Your task to perform on an android device: turn on improve location accuracy Image 0: 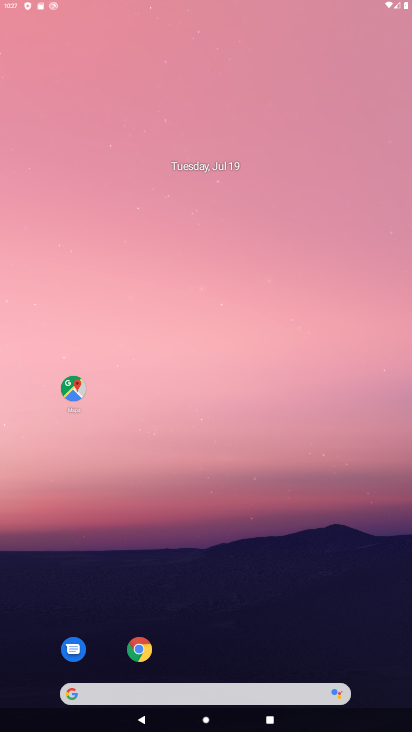
Step 0: click (318, 80)
Your task to perform on an android device: turn on improve location accuracy Image 1: 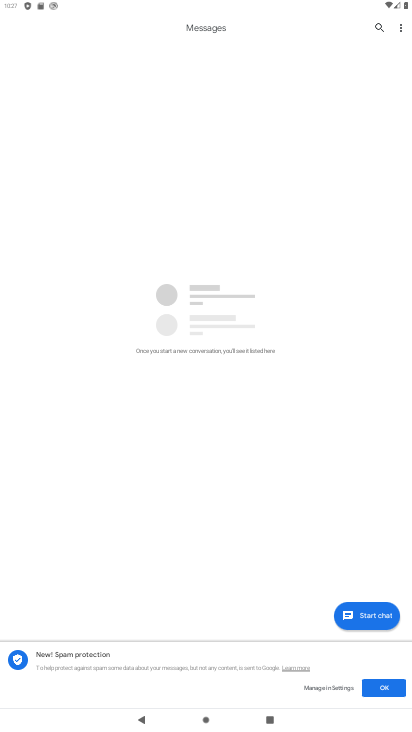
Step 1: press home button
Your task to perform on an android device: turn on improve location accuracy Image 2: 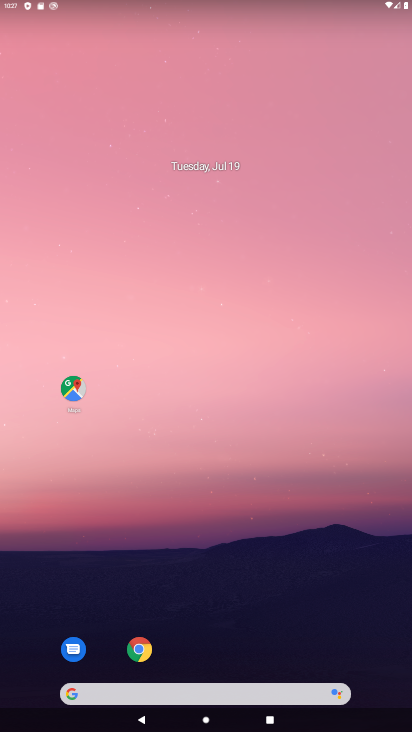
Step 2: drag from (200, 599) to (213, 1)
Your task to perform on an android device: turn on improve location accuracy Image 3: 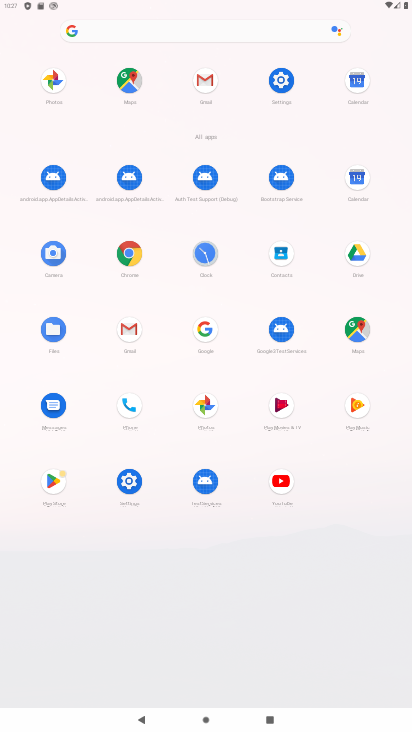
Step 3: click (138, 486)
Your task to perform on an android device: turn on improve location accuracy Image 4: 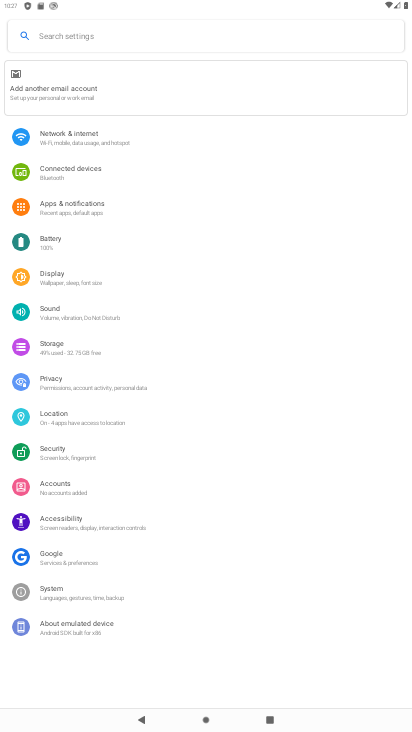
Step 4: click (90, 425)
Your task to perform on an android device: turn on improve location accuracy Image 5: 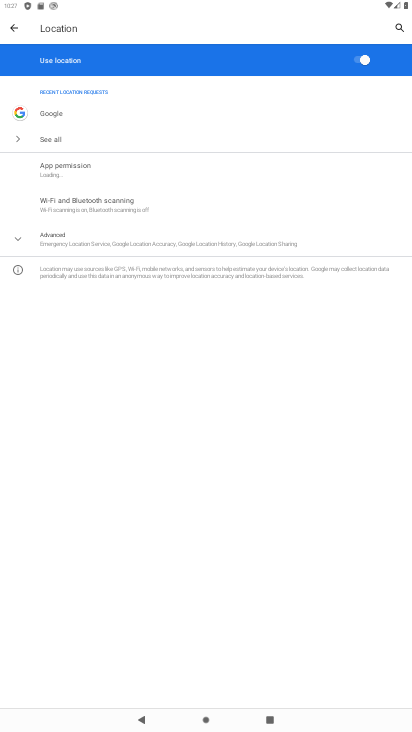
Step 5: click (136, 240)
Your task to perform on an android device: turn on improve location accuracy Image 6: 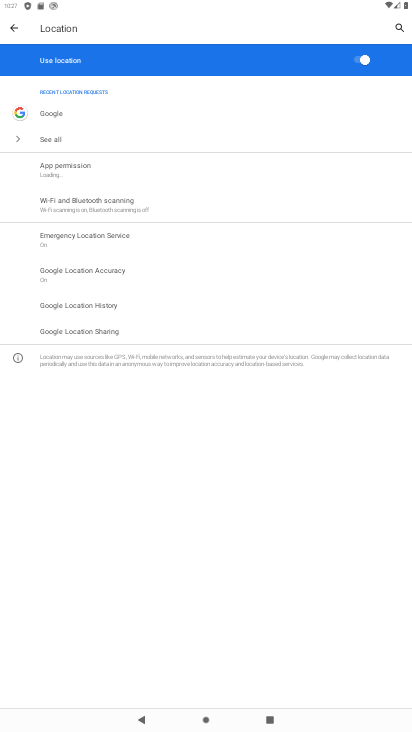
Step 6: click (142, 273)
Your task to perform on an android device: turn on improve location accuracy Image 7: 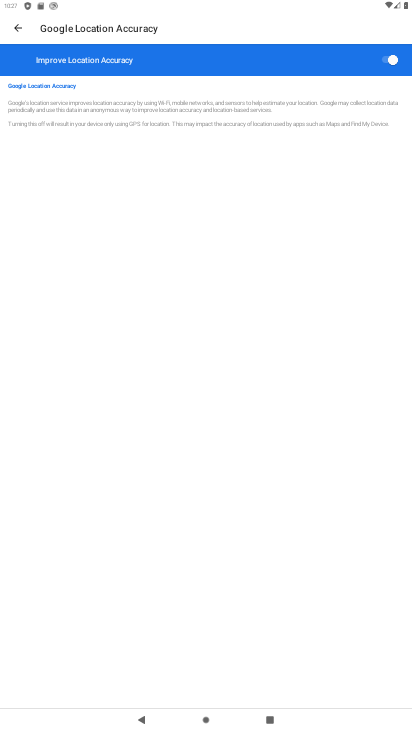
Step 7: task complete